Your task to perform on an android device: find photos in the google photos app Image 0: 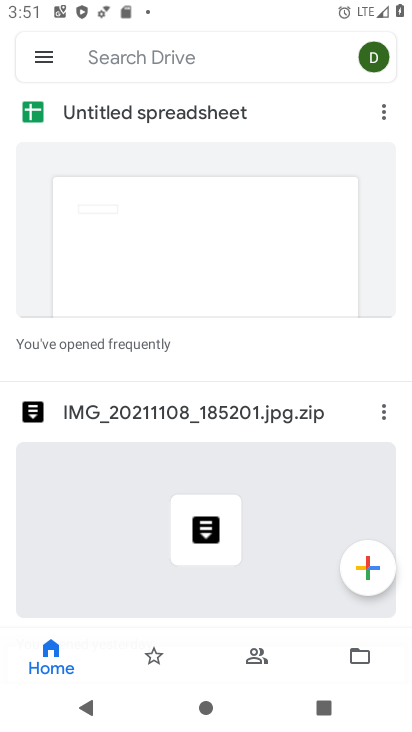
Step 0: press home button
Your task to perform on an android device: find photos in the google photos app Image 1: 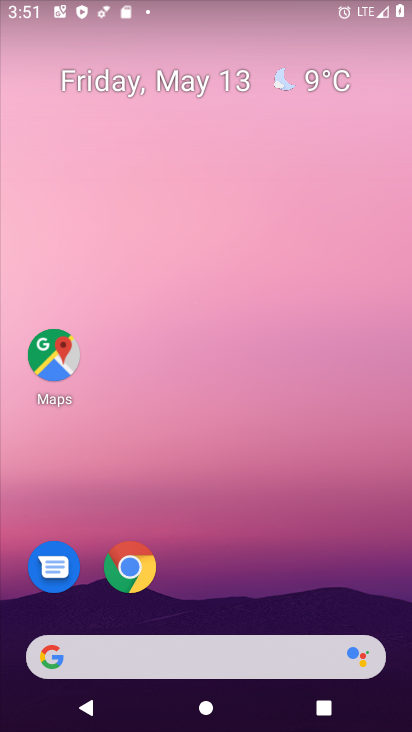
Step 1: drag from (264, 614) to (259, 3)
Your task to perform on an android device: find photos in the google photos app Image 2: 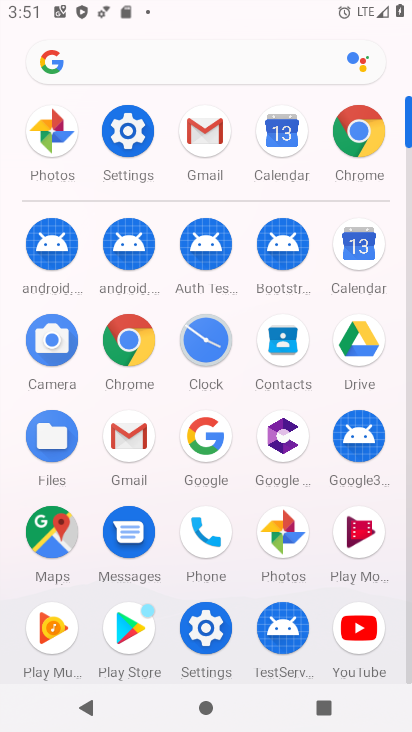
Step 2: click (285, 538)
Your task to perform on an android device: find photos in the google photos app Image 3: 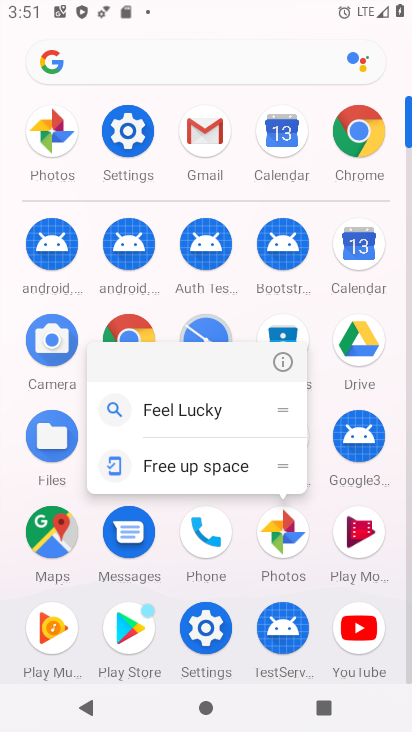
Step 3: click (285, 538)
Your task to perform on an android device: find photos in the google photos app Image 4: 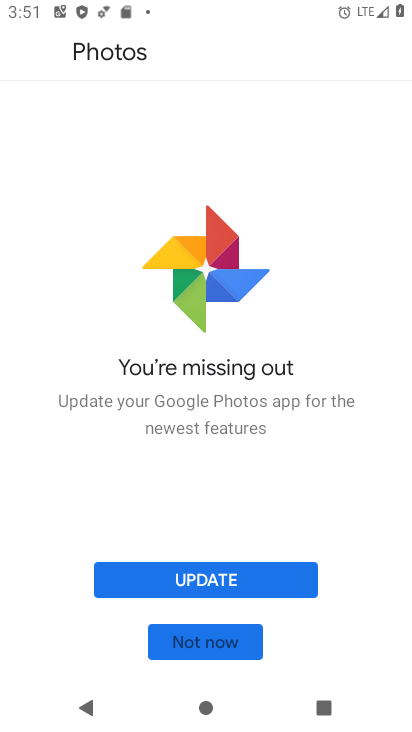
Step 4: click (193, 652)
Your task to perform on an android device: find photos in the google photos app Image 5: 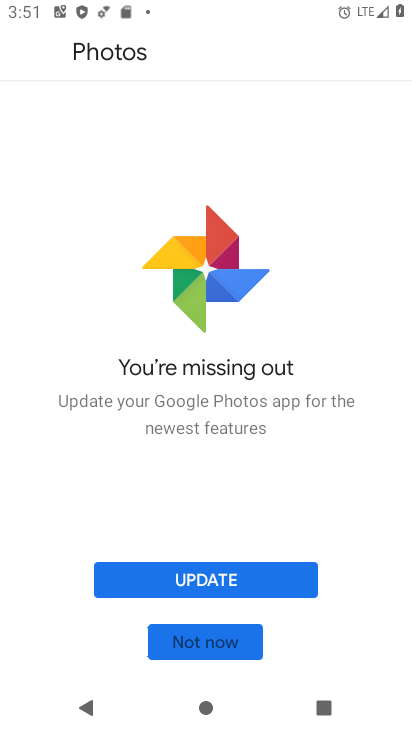
Step 5: click (202, 649)
Your task to perform on an android device: find photos in the google photos app Image 6: 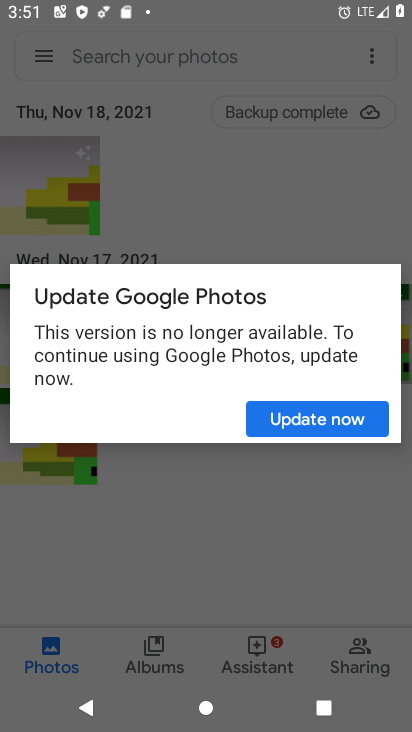
Step 6: click (333, 419)
Your task to perform on an android device: find photos in the google photos app Image 7: 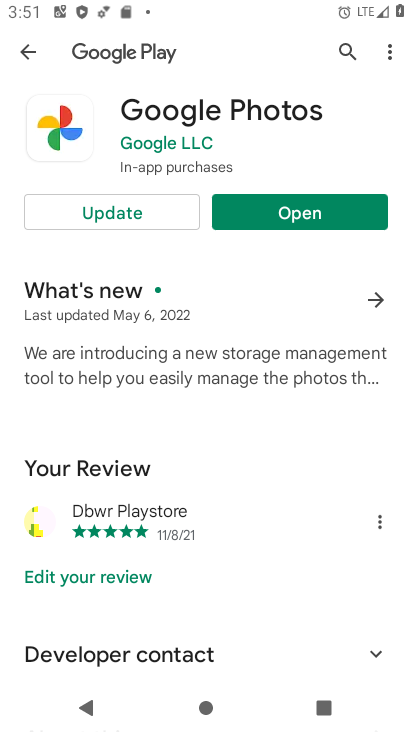
Step 7: click (305, 222)
Your task to perform on an android device: find photos in the google photos app Image 8: 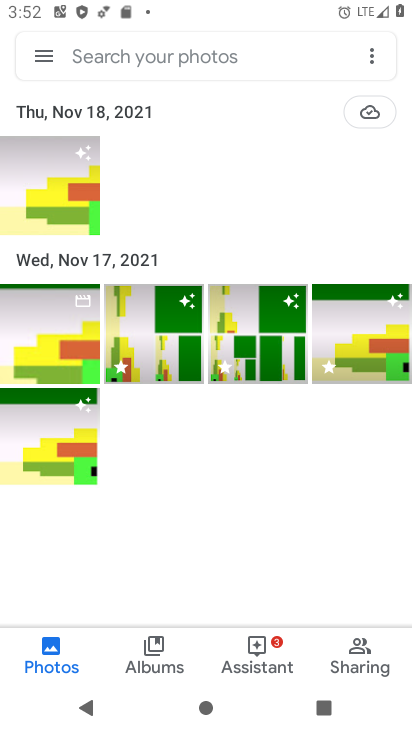
Step 8: click (47, 665)
Your task to perform on an android device: find photos in the google photos app Image 9: 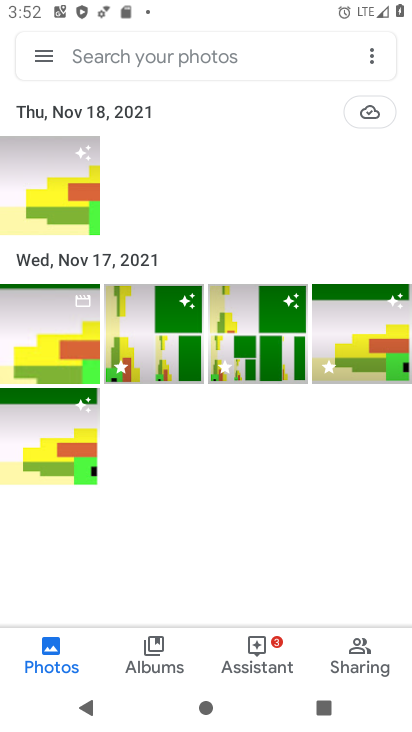
Step 9: task complete